Your task to perform on an android device: Play the last video I watched on Youtube Image 0: 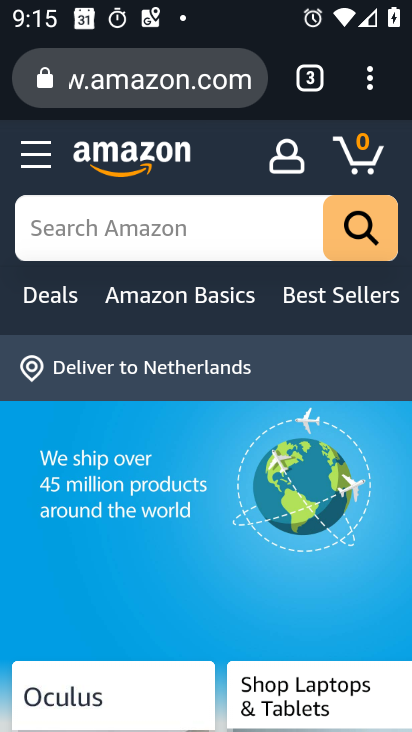
Step 0: press back button
Your task to perform on an android device: Play the last video I watched on Youtube Image 1: 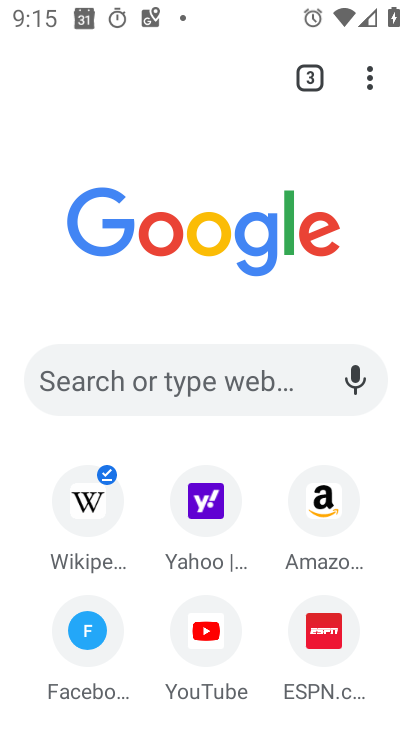
Step 1: press back button
Your task to perform on an android device: Play the last video I watched on Youtube Image 2: 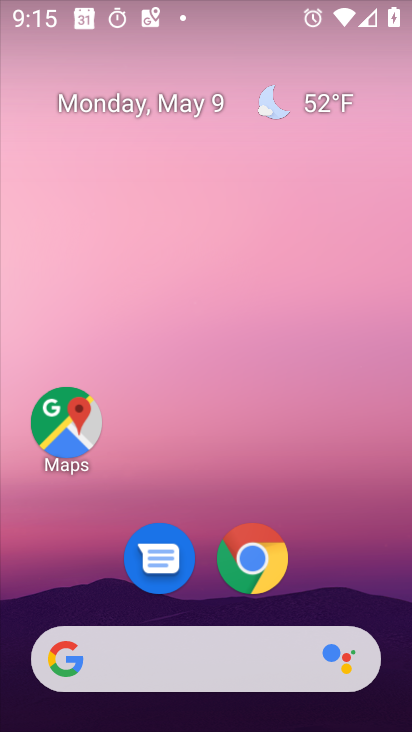
Step 2: drag from (232, 624) to (338, 5)
Your task to perform on an android device: Play the last video I watched on Youtube Image 3: 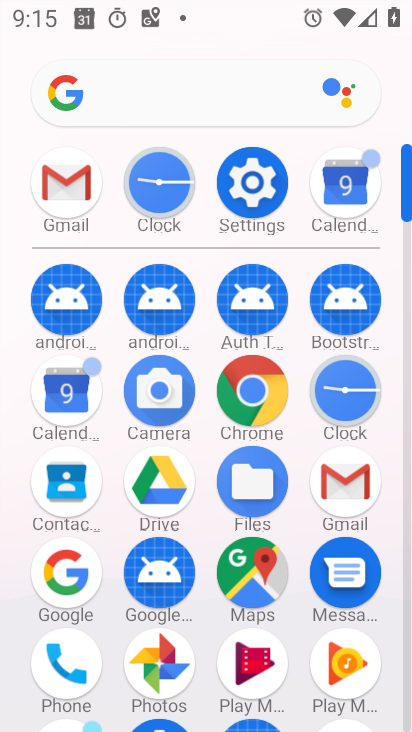
Step 3: drag from (187, 658) to (284, 150)
Your task to perform on an android device: Play the last video I watched on Youtube Image 4: 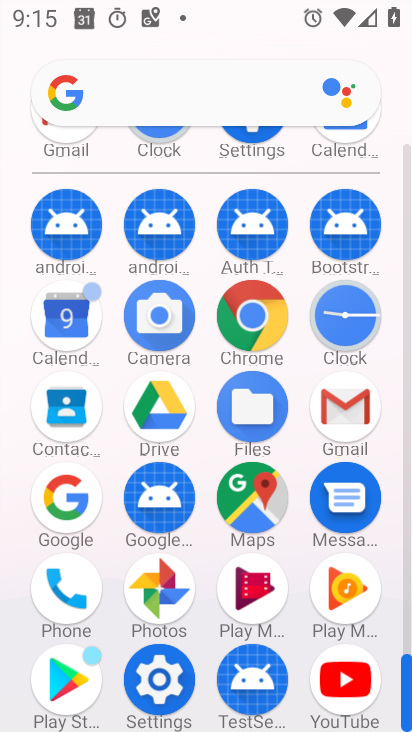
Step 4: click (343, 689)
Your task to perform on an android device: Play the last video I watched on Youtube Image 5: 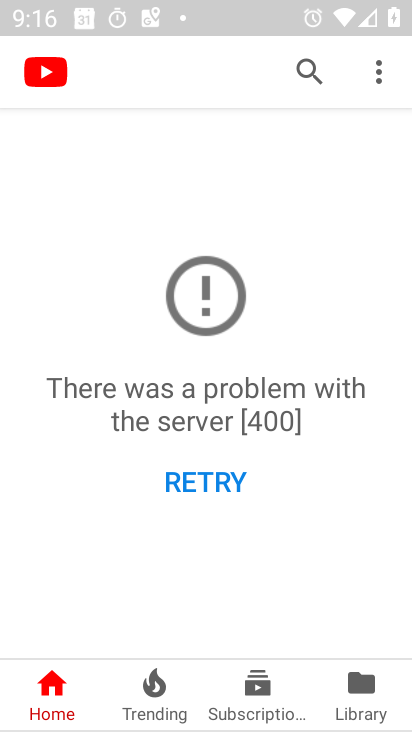
Step 5: click (343, 700)
Your task to perform on an android device: Play the last video I watched on Youtube Image 6: 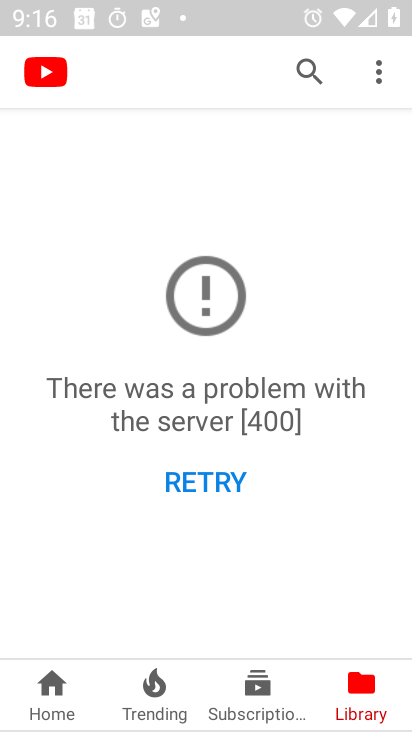
Step 6: click (341, 698)
Your task to perform on an android device: Play the last video I watched on Youtube Image 7: 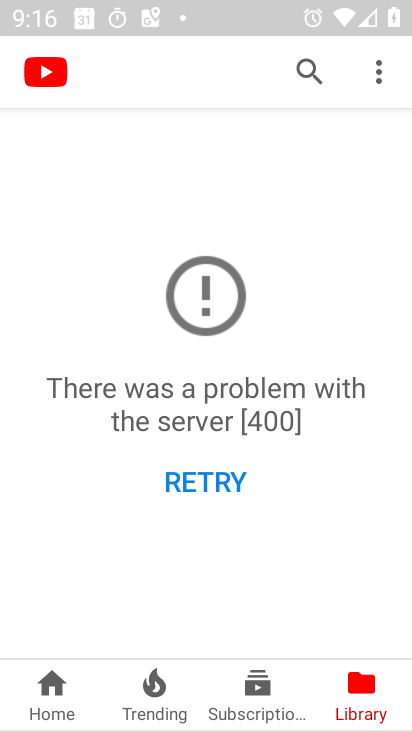
Step 7: task complete